Your task to perform on an android device: Toggle the flashlight Image 0: 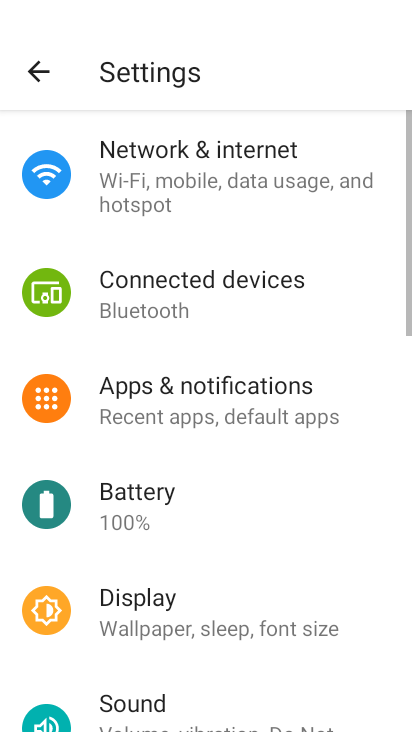
Step 0: drag from (210, 121) to (216, 647)
Your task to perform on an android device: Toggle the flashlight Image 1: 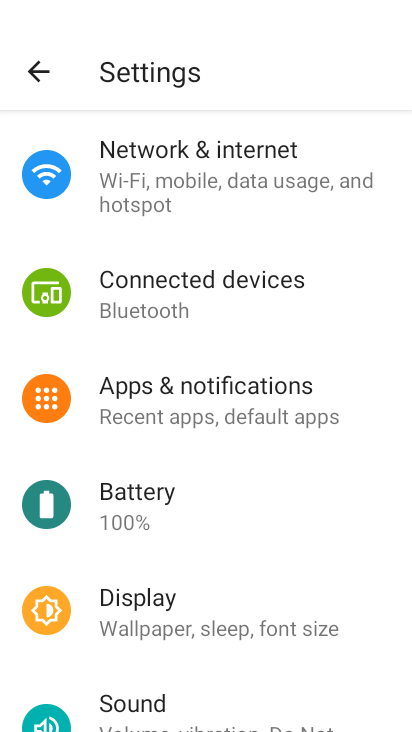
Step 1: task complete